Your task to perform on an android device: open app "Paramount+ | Peak Streaming" Image 0: 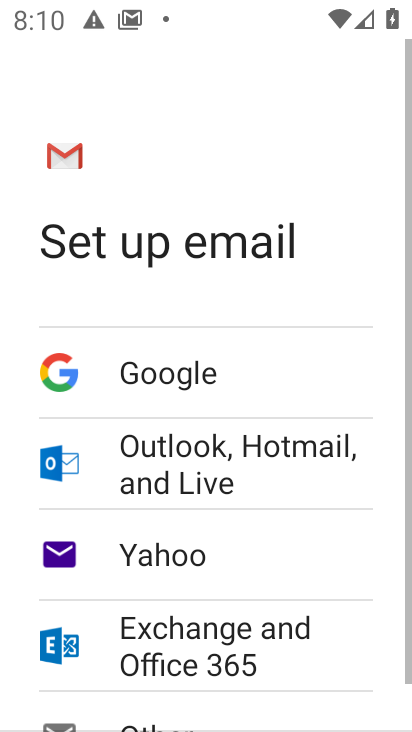
Step 0: press home button
Your task to perform on an android device: open app "Paramount+ | Peak Streaming" Image 1: 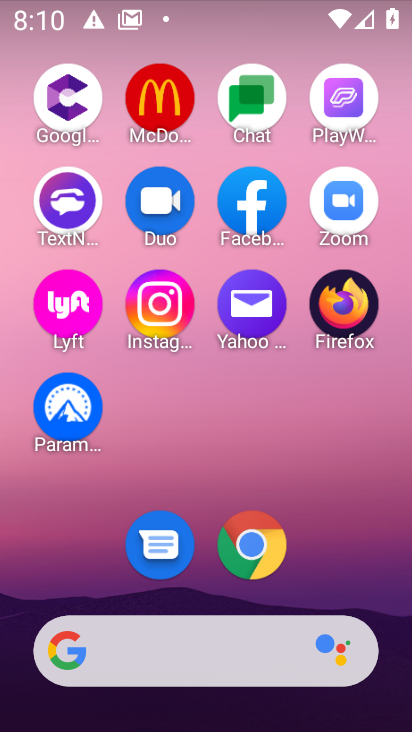
Step 1: drag from (350, 542) to (364, 60)
Your task to perform on an android device: open app "Paramount+ | Peak Streaming" Image 2: 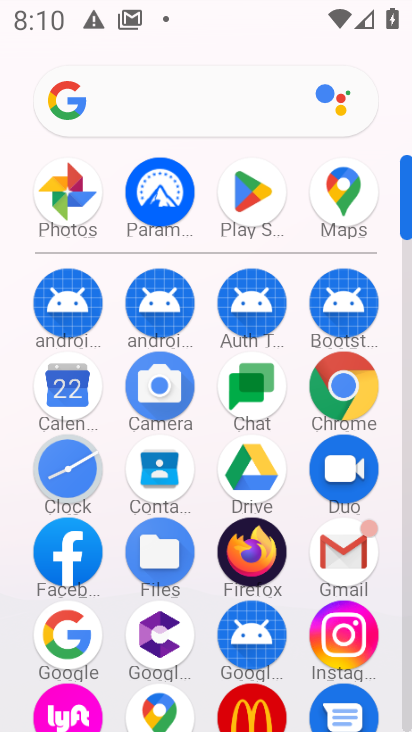
Step 2: click (261, 192)
Your task to perform on an android device: open app "Paramount+ | Peak Streaming" Image 3: 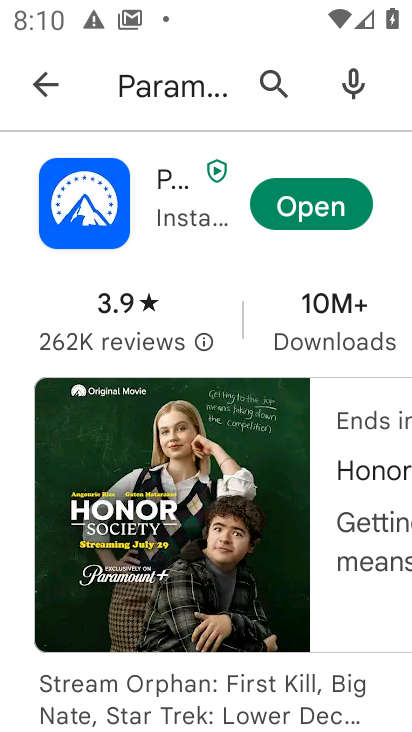
Step 3: press back button
Your task to perform on an android device: open app "Paramount+ | Peak Streaming" Image 4: 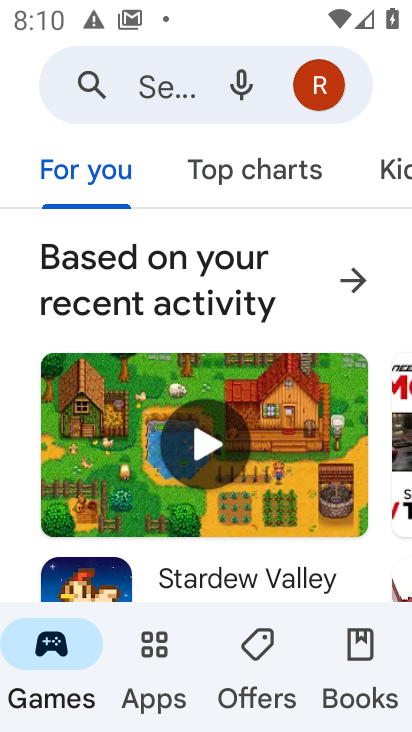
Step 4: click (154, 75)
Your task to perform on an android device: open app "Paramount+ | Peak Streaming" Image 5: 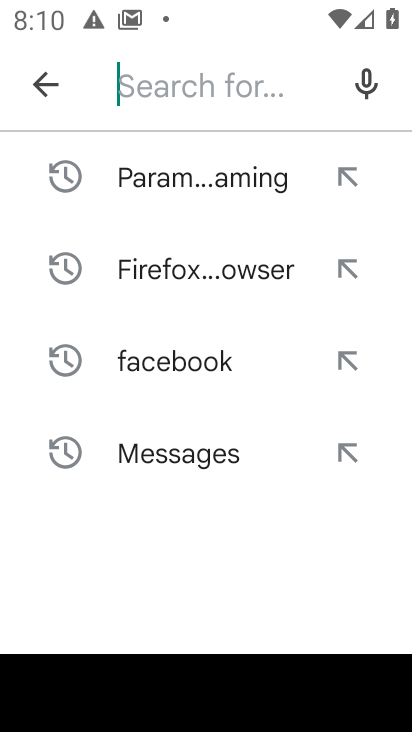
Step 5: type "Paramount+ | Peak Streaming"
Your task to perform on an android device: open app "Paramount+ | Peak Streaming" Image 6: 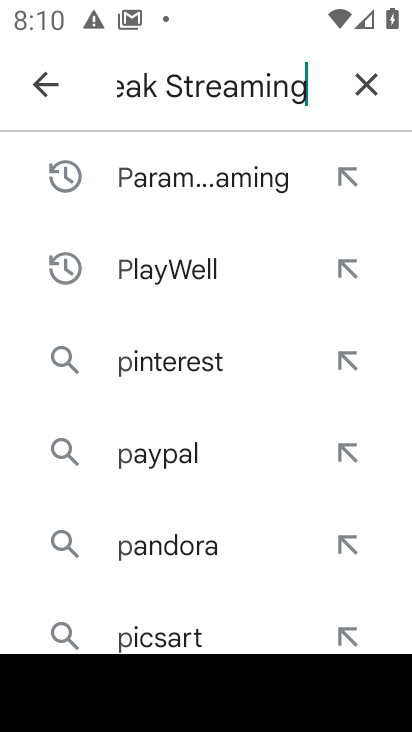
Step 6: press enter
Your task to perform on an android device: open app "Paramount+ | Peak Streaming" Image 7: 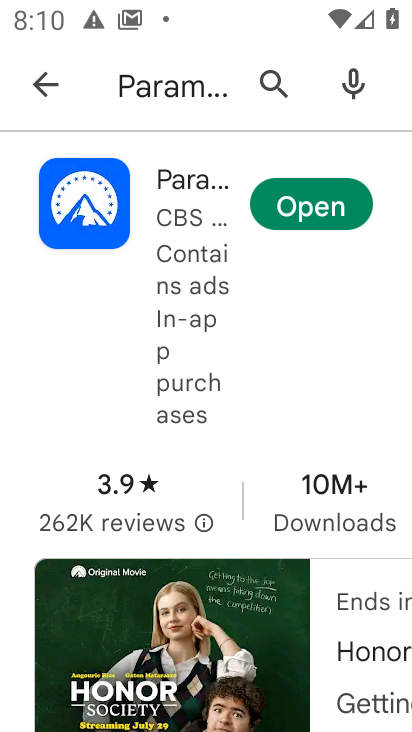
Step 7: click (328, 210)
Your task to perform on an android device: open app "Paramount+ | Peak Streaming" Image 8: 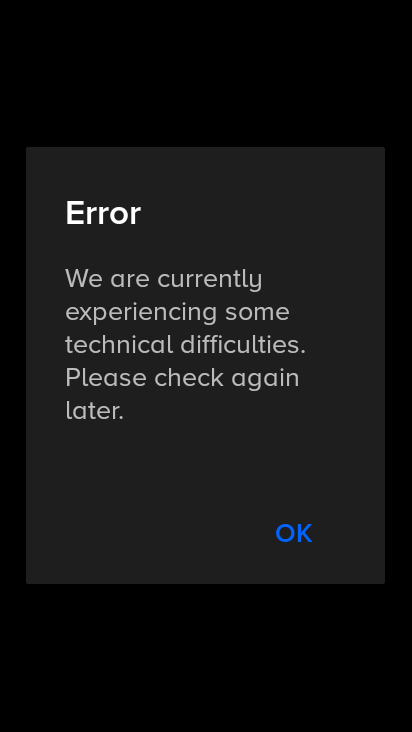
Step 8: task complete